Your task to perform on an android device: Open maps Image 0: 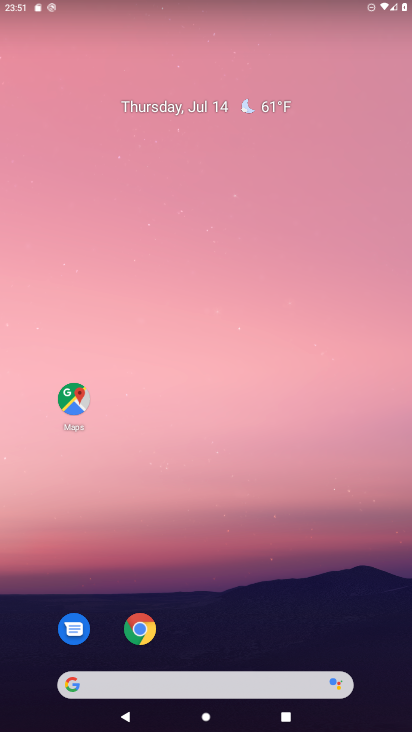
Step 0: click (76, 406)
Your task to perform on an android device: Open maps Image 1: 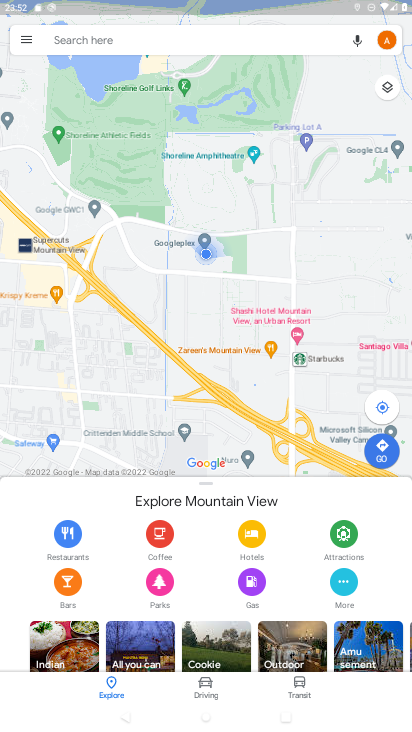
Step 1: task complete